Your task to perform on an android device: Check the weather Image 0: 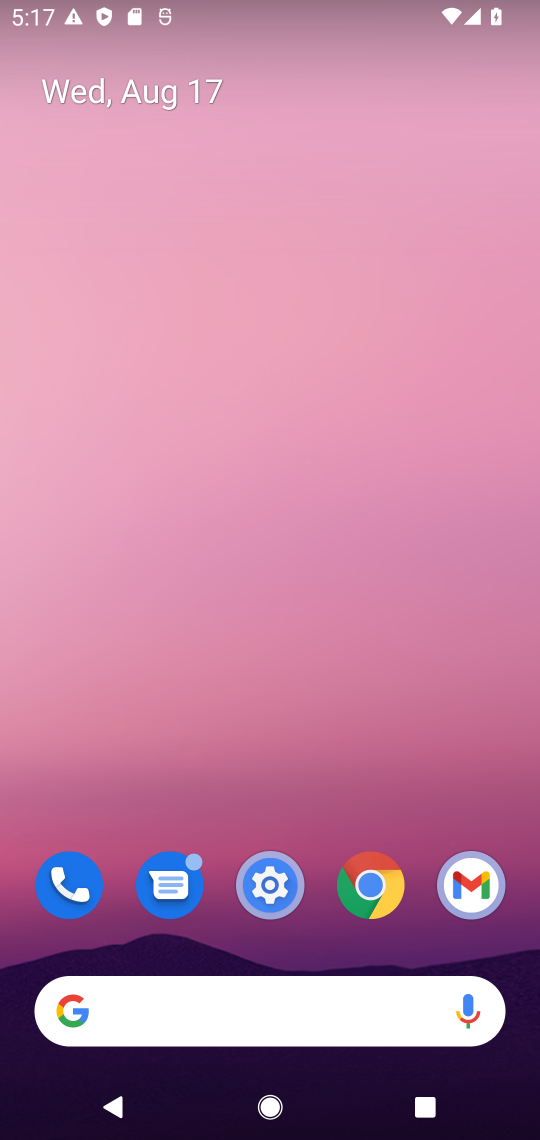
Step 0: drag from (271, 799) to (364, 215)
Your task to perform on an android device: Check the weather Image 1: 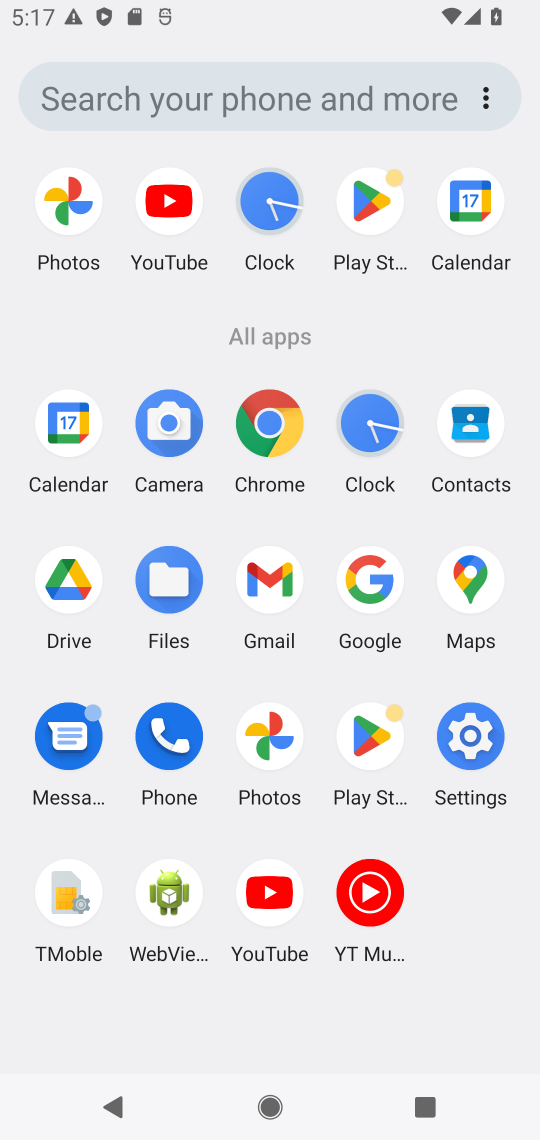
Step 1: click (262, 423)
Your task to perform on an android device: Check the weather Image 2: 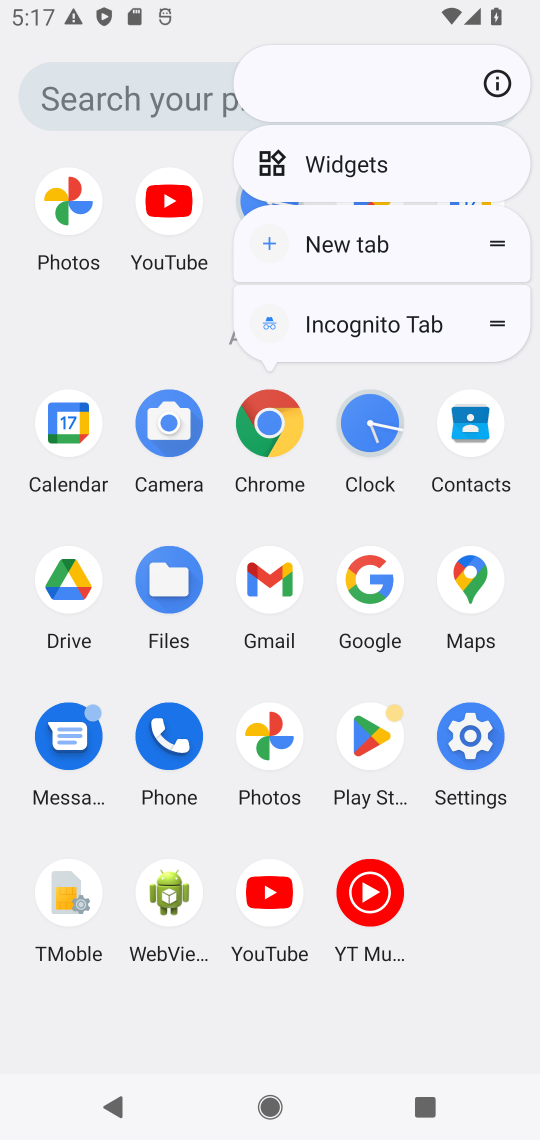
Step 2: click (262, 444)
Your task to perform on an android device: Check the weather Image 3: 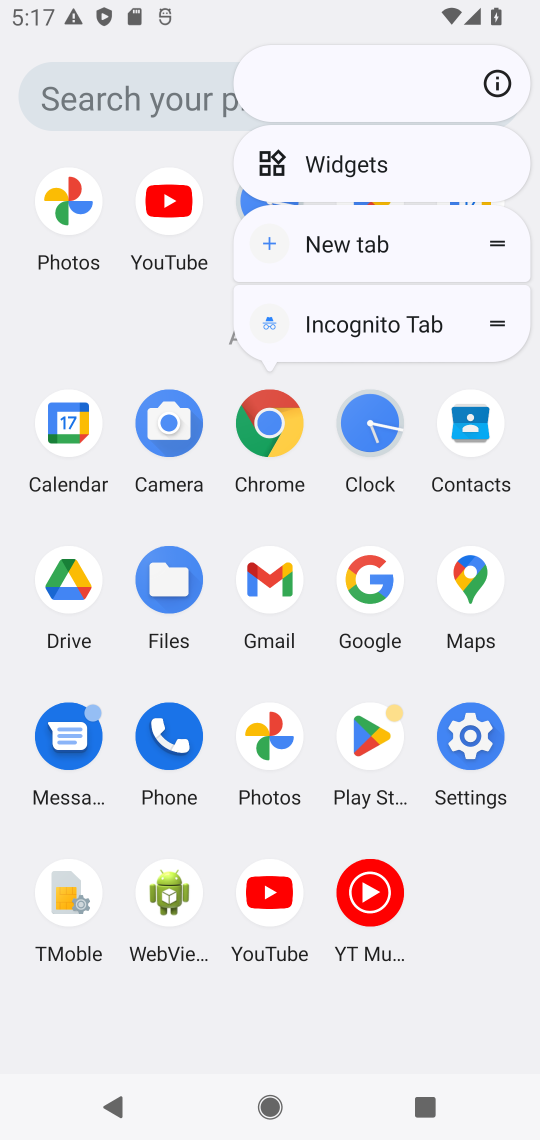
Step 3: click (267, 429)
Your task to perform on an android device: Check the weather Image 4: 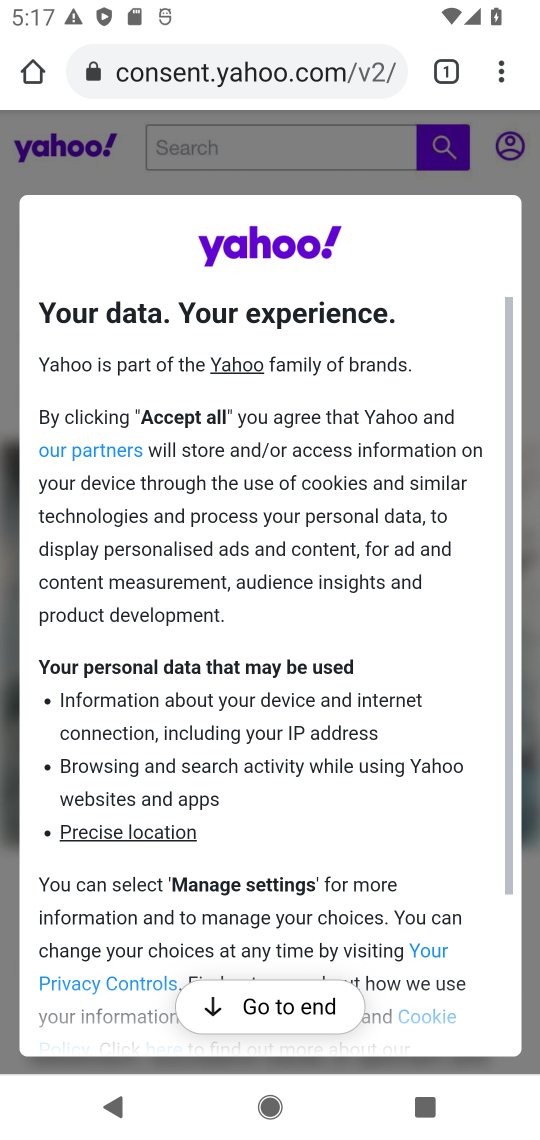
Step 4: click (316, 69)
Your task to perform on an android device: Check the weather Image 5: 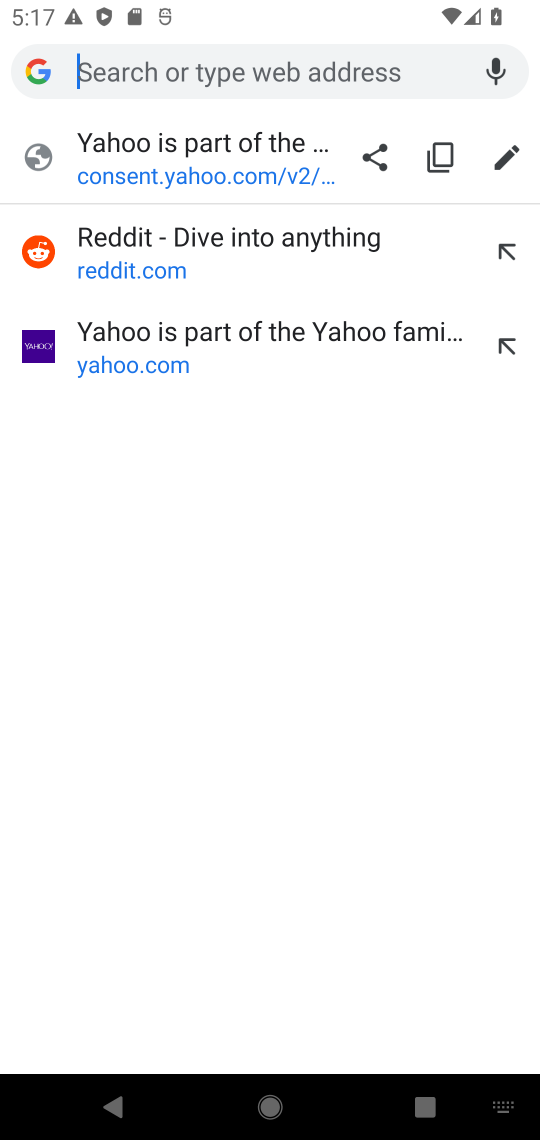
Step 5: type "weather"
Your task to perform on an android device: Check the weather Image 6: 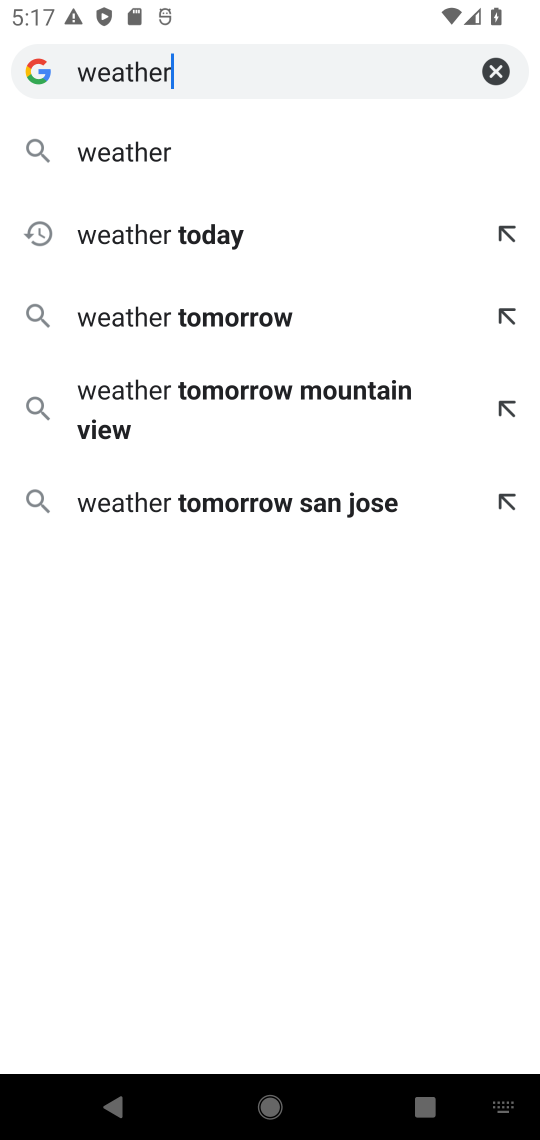
Step 6: click (161, 153)
Your task to perform on an android device: Check the weather Image 7: 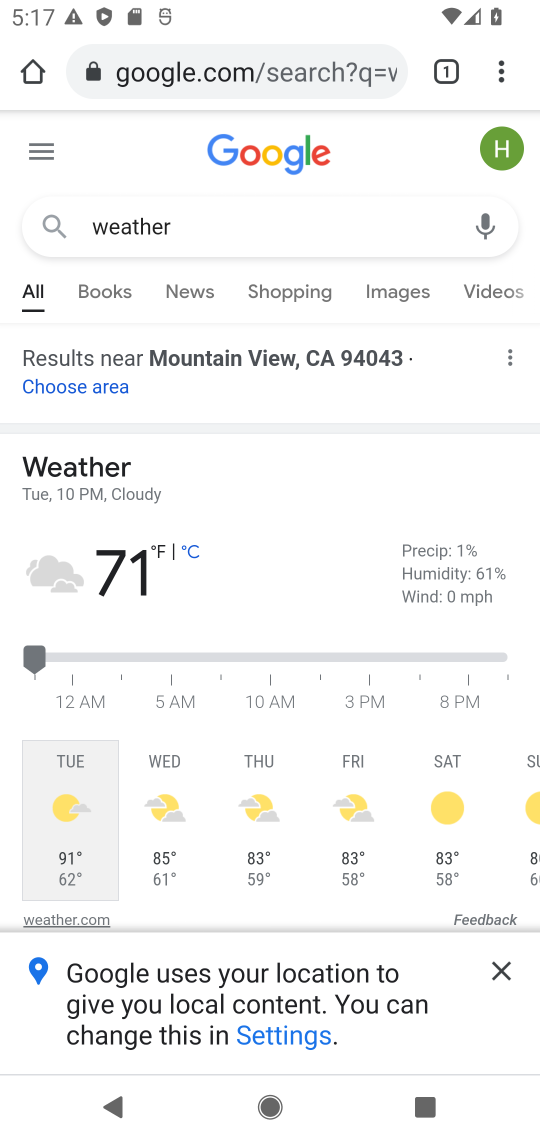
Step 7: task complete